Your task to perform on an android device: turn on improve location accuracy Image 0: 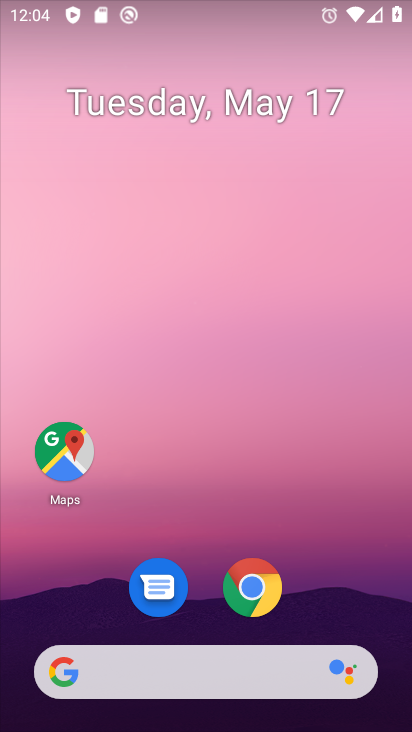
Step 0: drag from (395, 642) to (265, 66)
Your task to perform on an android device: turn on improve location accuracy Image 1: 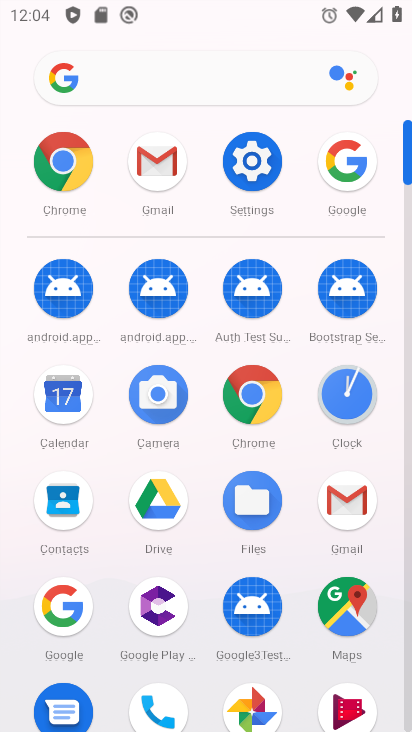
Step 1: click (262, 154)
Your task to perform on an android device: turn on improve location accuracy Image 2: 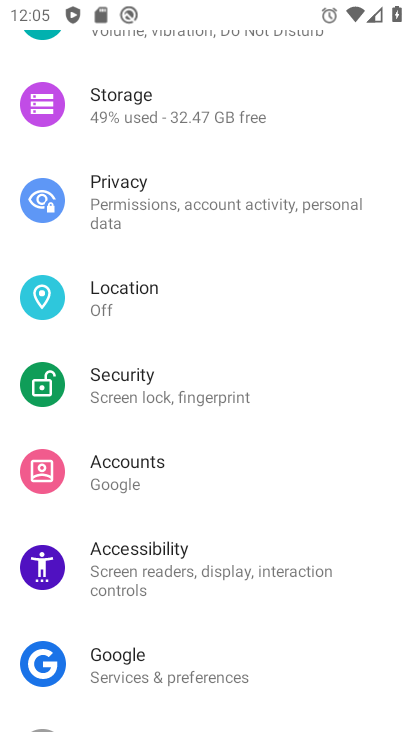
Step 2: click (190, 303)
Your task to perform on an android device: turn on improve location accuracy Image 3: 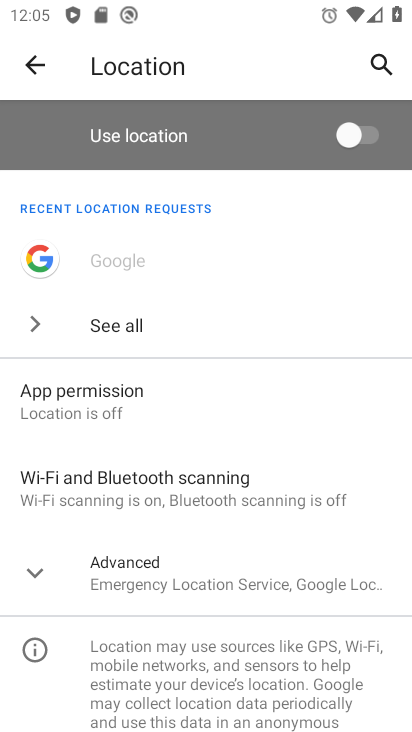
Step 3: click (27, 573)
Your task to perform on an android device: turn on improve location accuracy Image 4: 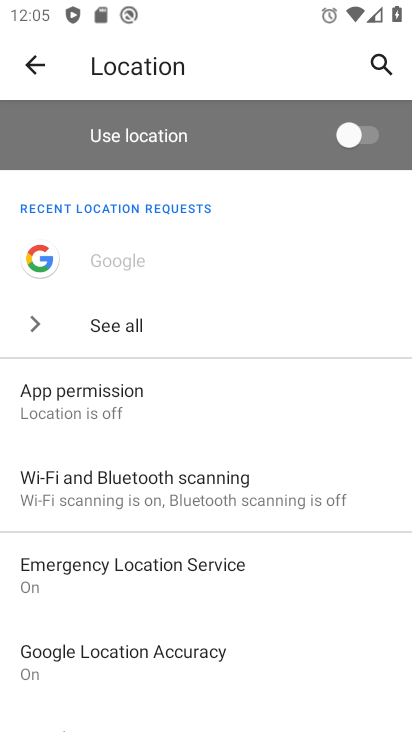
Step 4: drag from (102, 655) to (167, 470)
Your task to perform on an android device: turn on improve location accuracy Image 5: 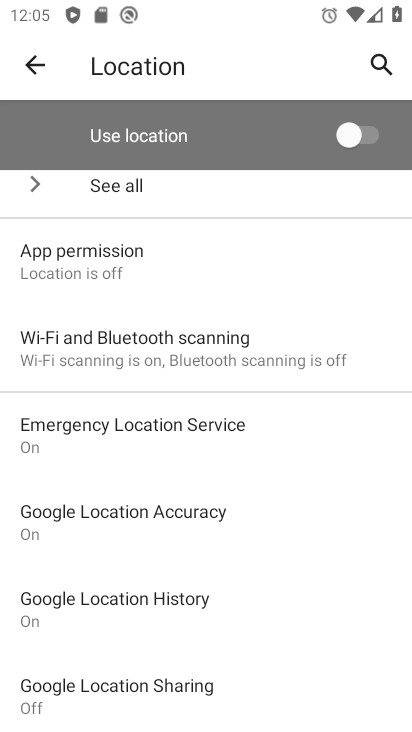
Step 5: click (139, 521)
Your task to perform on an android device: turn on improve location accuracy Image 6: 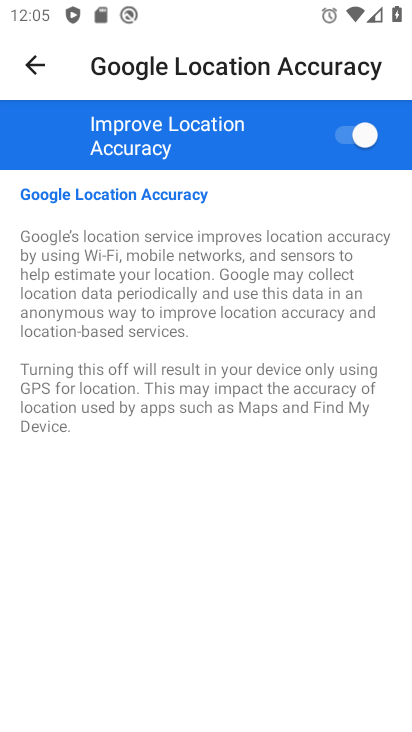
Step 6: task complete